Your task to perform on an android device: Open battery settings Image 0: 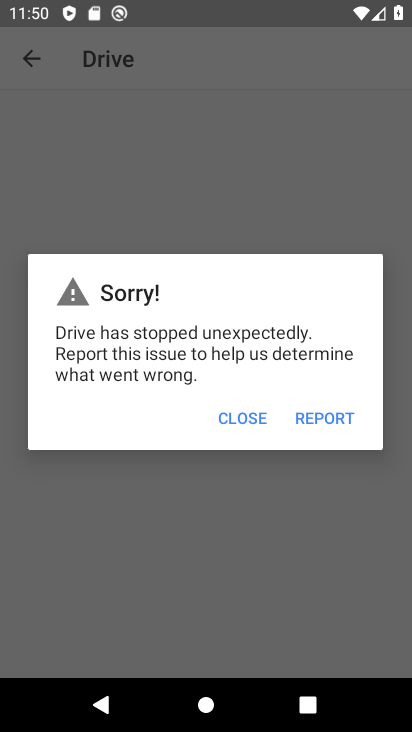
Step 0: press home button
Your task to perform on an android device: Open battery settings Image 1: 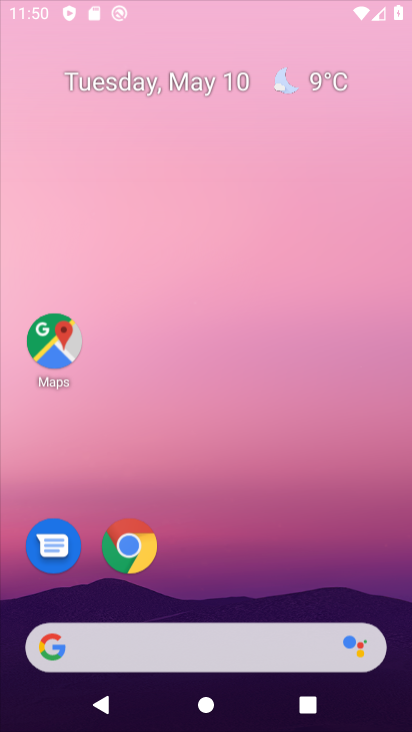
Step 1: drag from (258, 111) to (296, 77)
Your task to perform on an android device: Open battery settings Image 2: 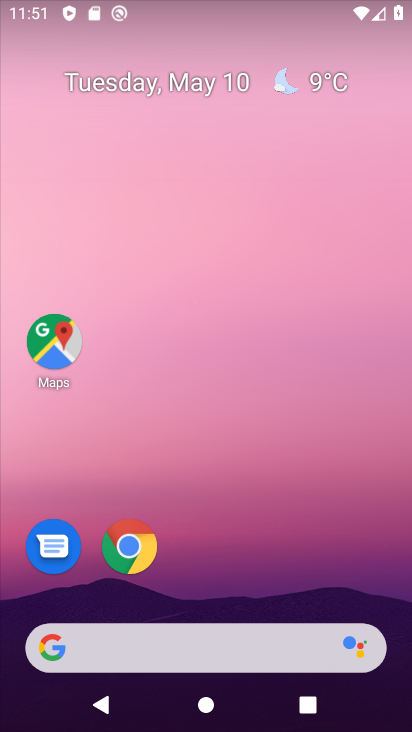
Step 2: drag from (199, 615) to (277, 94)
Your task to perform on an android device: Open battery settings Image 3: 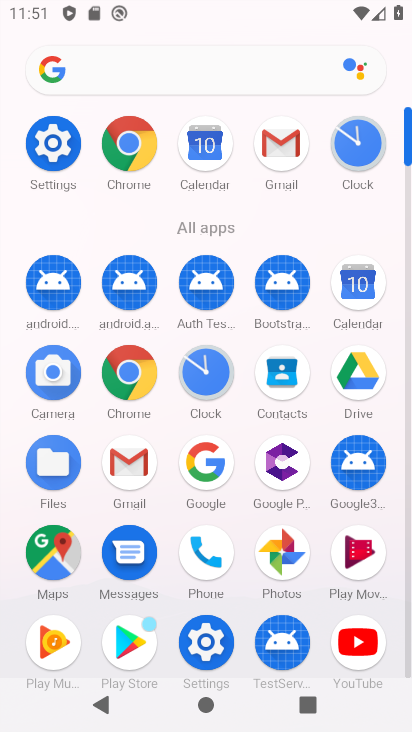
Step 3: click (54, 159)
Your task to perform on an android device: Open battery settings Image 4: 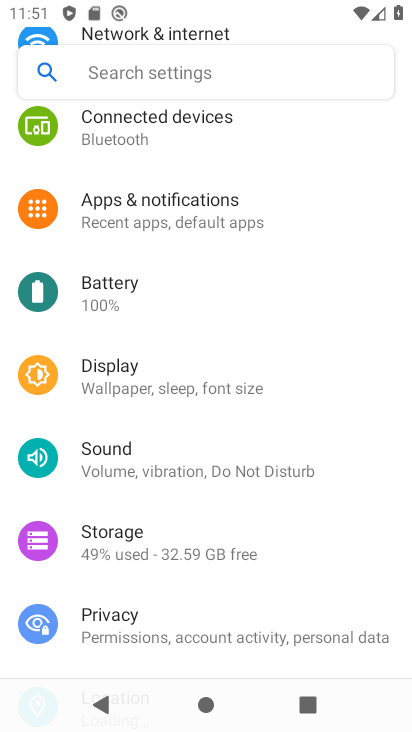
Step 4: click (124, 300)
Your task to perform on an android device: Open battery settings Image 5: 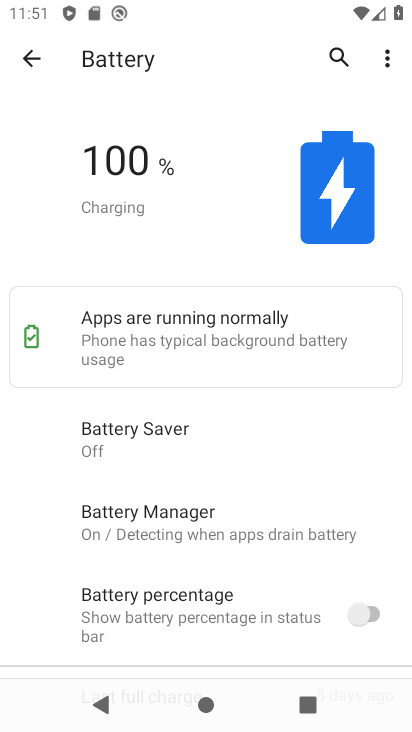
Step 5: task complete